Your task to perform on an android device: Show the shopping cart on newegg.com. Search for macbook pro on newegg.com, select the first entry, add it to the cart, then select checkout. Image 0: 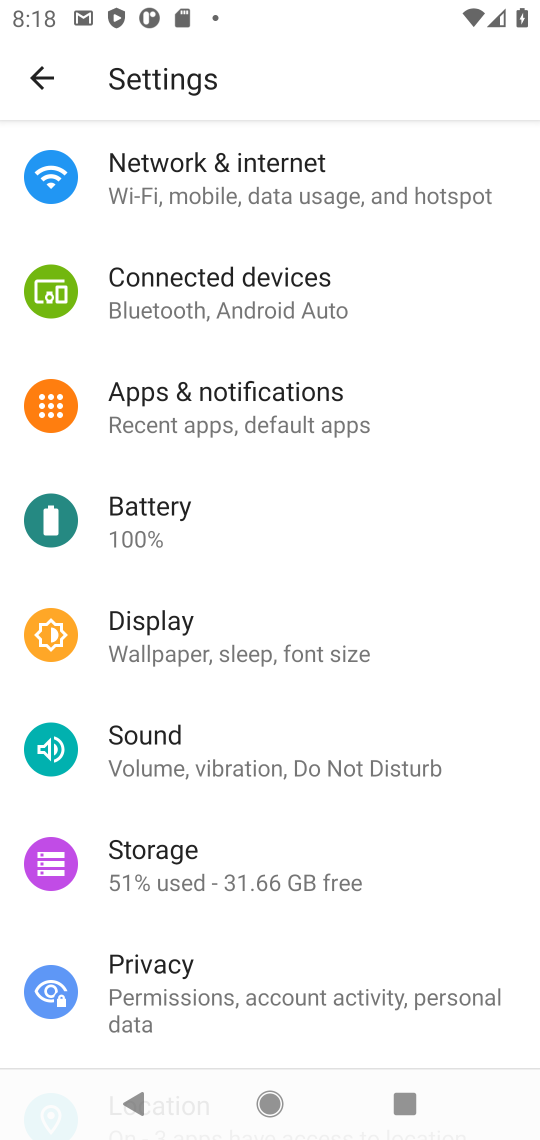
Step 0: press home button
Your task to perform on an android device: Show the shopping cart on newegg.com. Search for macbook pro on newegg.com, select the first entry, add it to the cart, then select checkout. Image 1: 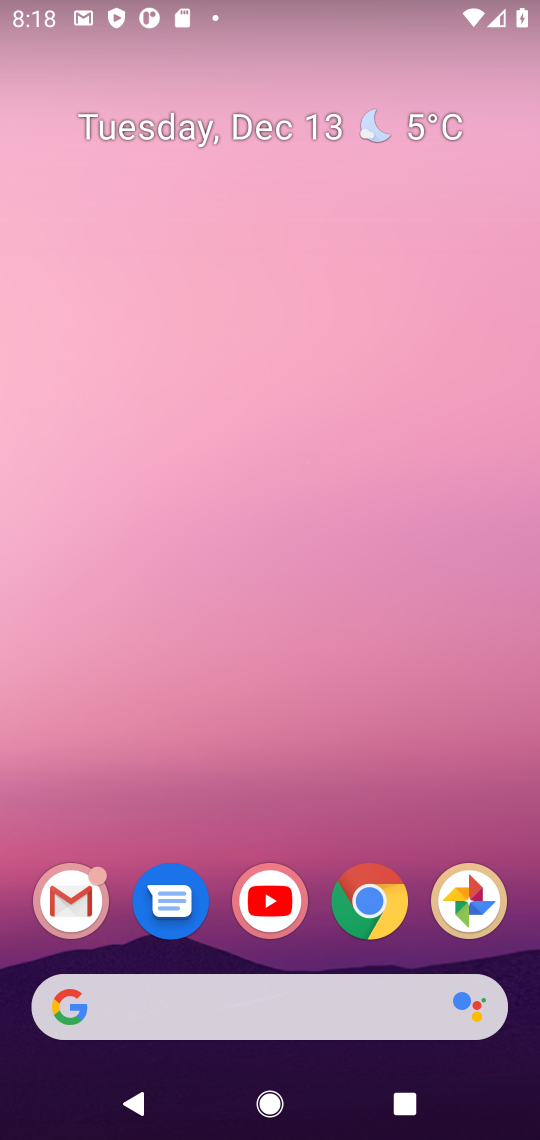
Step 1: click (375, 880)
Your task to perform on an android device: Show the shopping cart on newegg.com. Search for macbook pro on newegg.com, select the first entry, add it to the cart, then select checkout. Image 2: 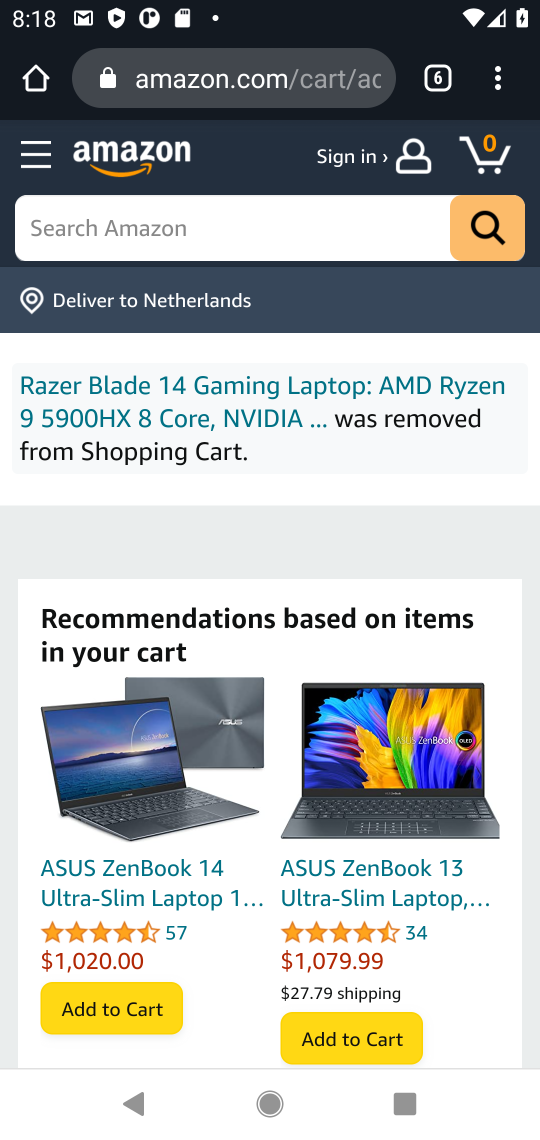
Step 2: click (435, 88)
Your task to perform on an android device: Show the shopping cart on newegg.com. Search for macbook pro on newegg.com, select the first entry, add it to the cart, then select checkout. Image 3: 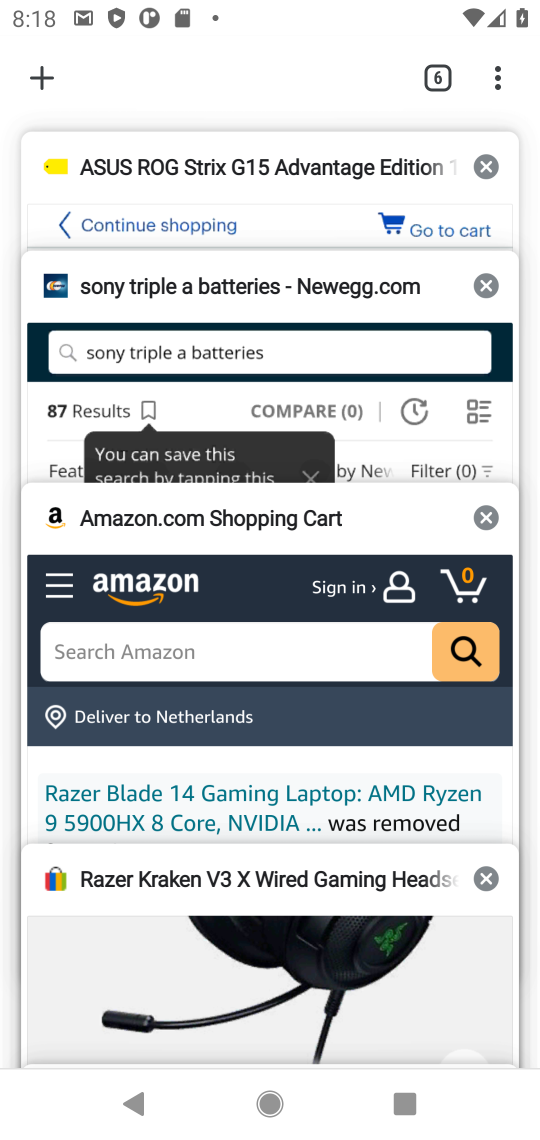
Step 3: click (293, 352)
Your task to perform on an android device: Show the shopping cart on newegg.com. Search for macbook pro on newegg.com, select the first entry, add it to the cart, then select checkout. Image 4: 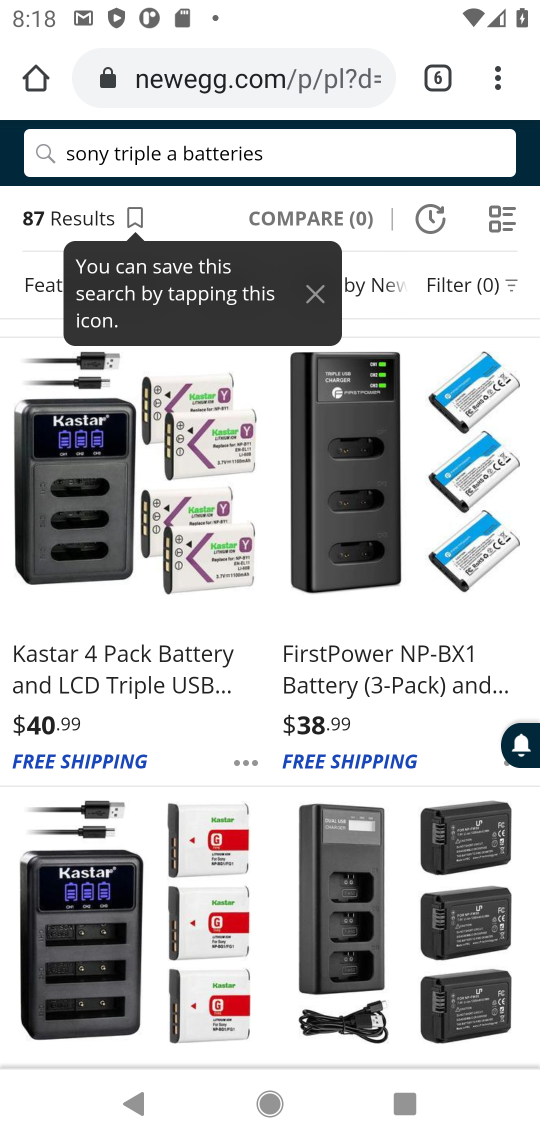
Step 4: drag from (414, 265) to (349, 683)
Your task to perform on an android device: Show the shopping cart on newegg.com. Search for macbook pro on newegg.com, select the first entry, add it to the cart, then select checkout. Image 5: 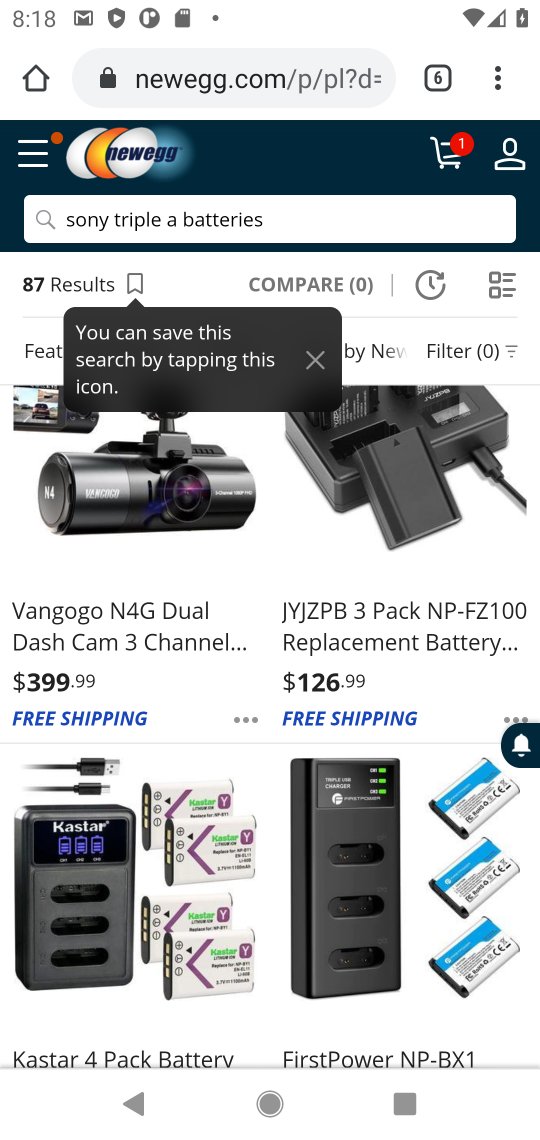
Step 5: click (450, 159)
Your task to perform on an android device: Show the shopping cart on newegg.com. Search for macbook pro on newegg.com, select the first entry, add it to the cart, then select checkout. Image 6: 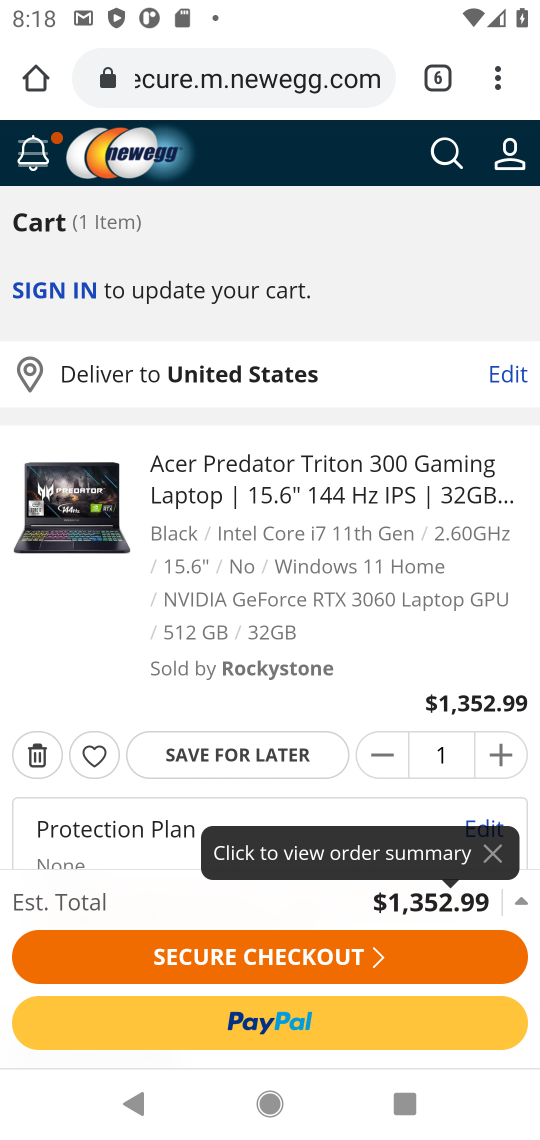
Step 6: click (32, 769)
Your task to perform on an android device: Show the shopping cart on newegg.com. Search for macbook pro on newegg.com, select the first entry, add it to the cart, then select checkout. Image 7: 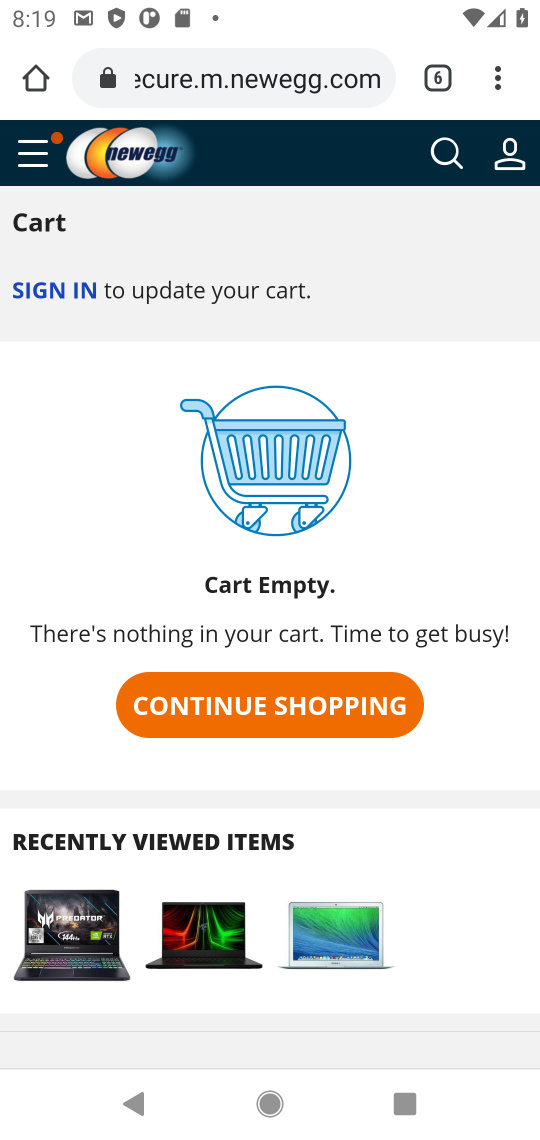
Step 7: click (445, 162)
Your task to perform on an android device: Show the shopping cart on newegg.com. Search for macbook pro on newegg.com, select the first entry, add it to the cart, then select checkout. Image 8: 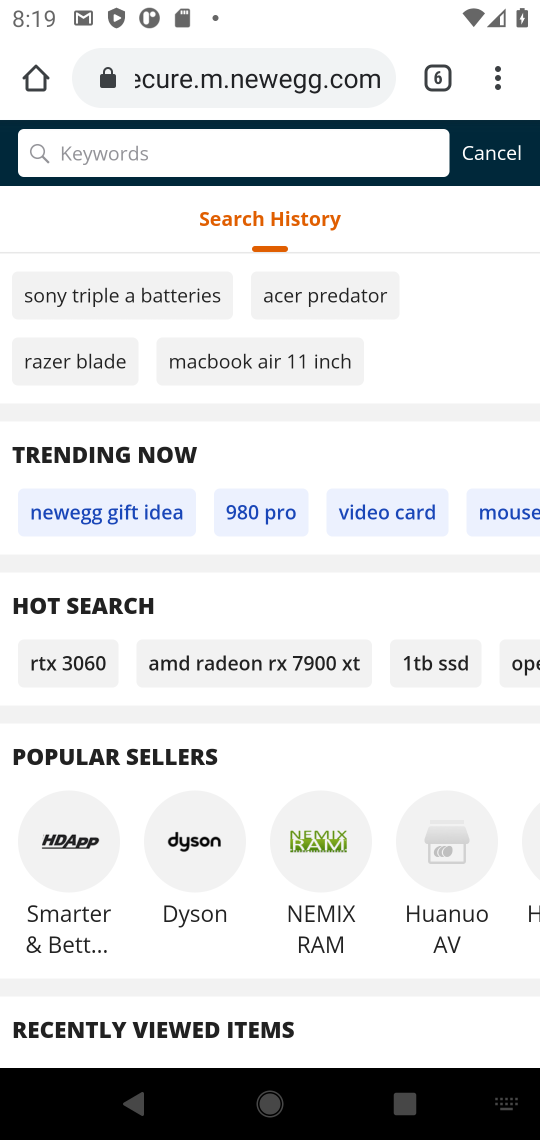
Step 8: type "macbook pro"
Your task to perform on an android device: Show the shopping cart on newegg.com. Search for macbook pro on newegg.com, select the first entry, add it to the cart, then select checkout. Image 9: 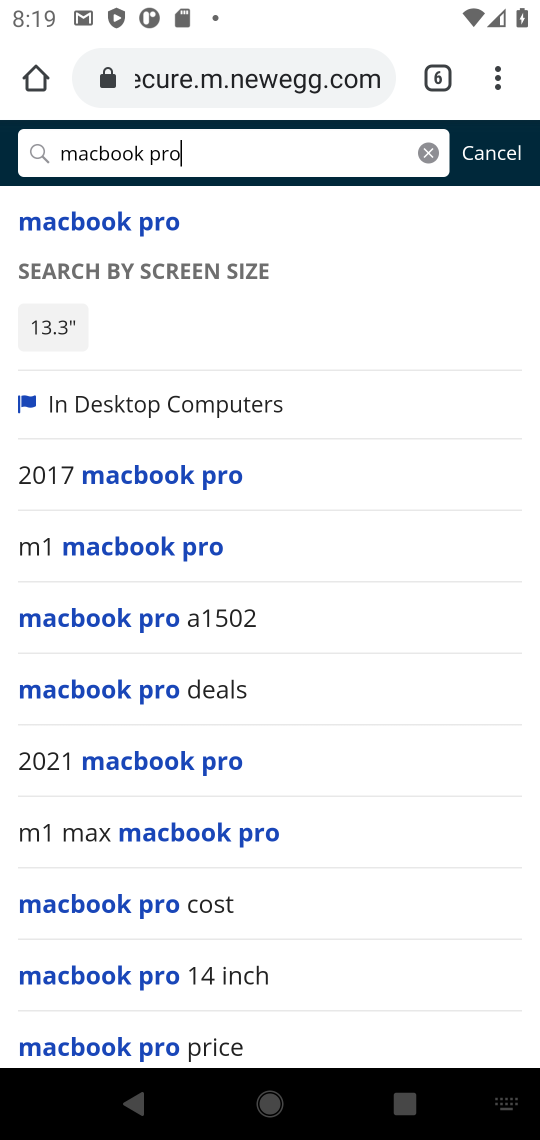
Step 9: click (138, 222)
Your task to perform on an android device: Show the shopping cart on newegg.com. Search for macbook pro on newegg.com, select the first entry, add it to the cart, then select checkout. Image 10: 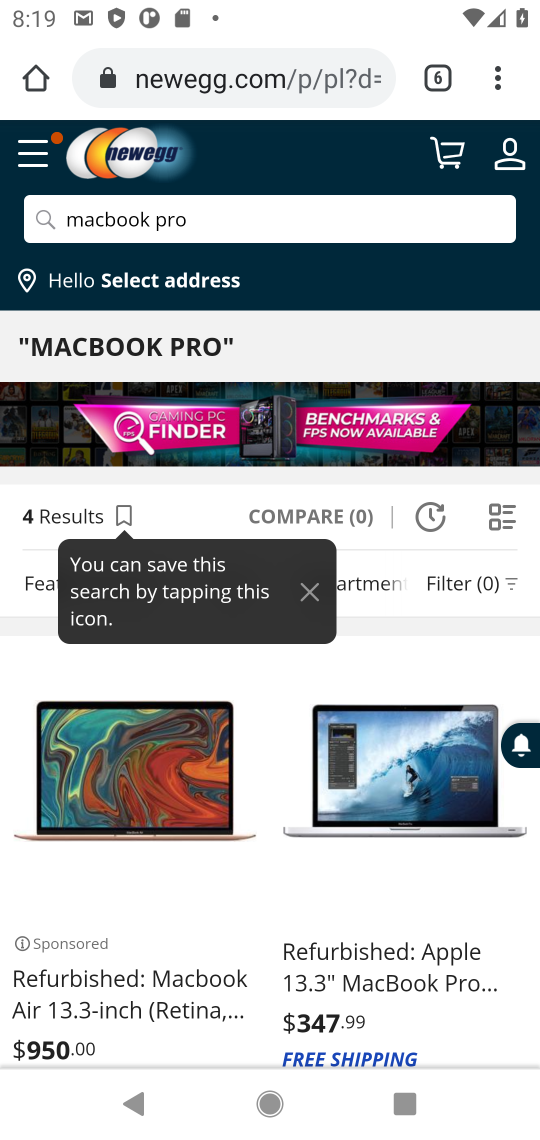
Step 10: click (80, 989)
Your task to perform on an android device: Show the shopping cart on newegg.com. Search for macbook pro on newegg.com, select the first entry, add it to the cart, then select checkout. Image 11: 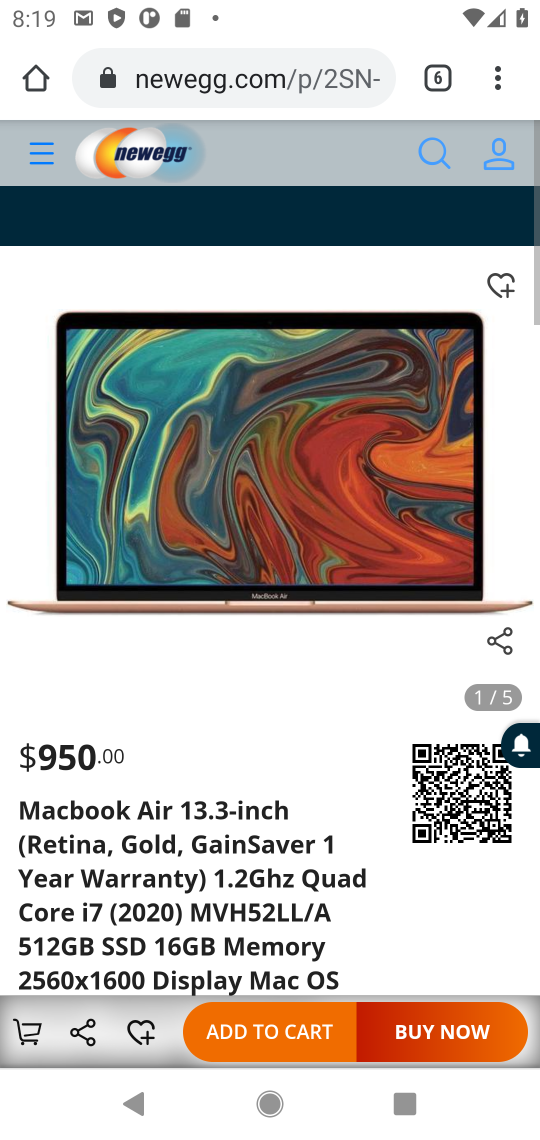
Step 11: click (285, 1048)
Your task to perform on an android device: Show the shopping cart on newegg.com. Search for macbook pro on newegg.com, select the first entry, add it to the cart, then select checkout. Image 12: 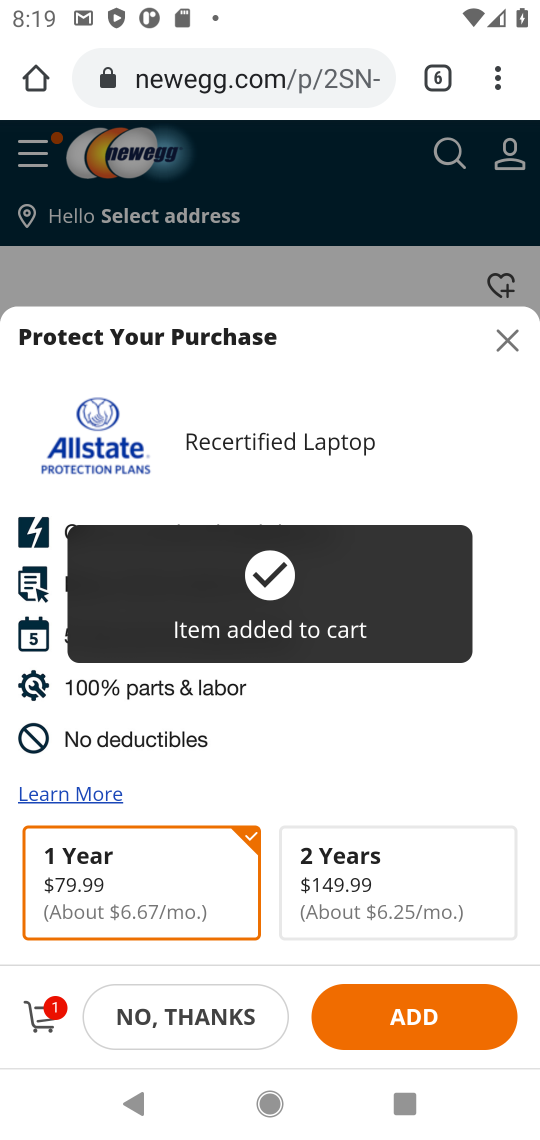
Step 12: task complete